Your task to perform on an android device: change keyboard looks Image 0: 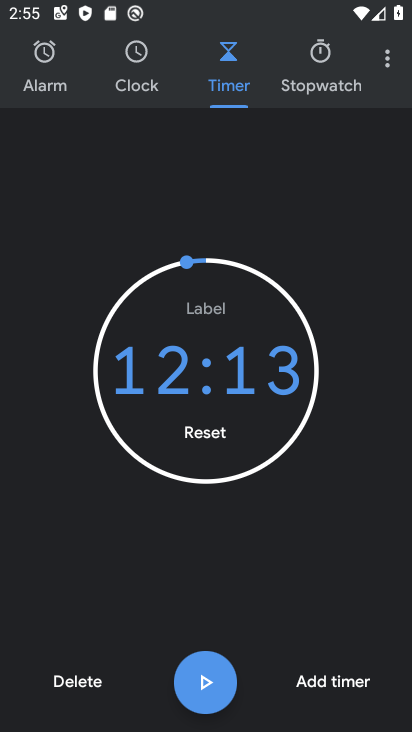
Step 0: press home button
Your task to perform on an android device: change keyboard looks Image 1: 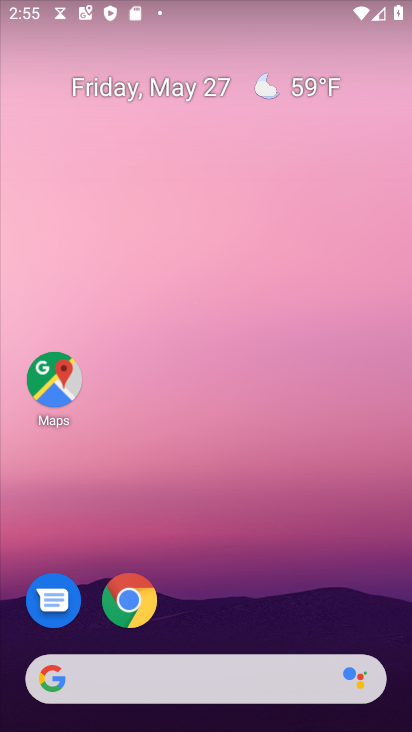
Step 1: drag from (261, 599) to (187, 163)
Your task to perform on an android device: change keyboard looks Image 2: 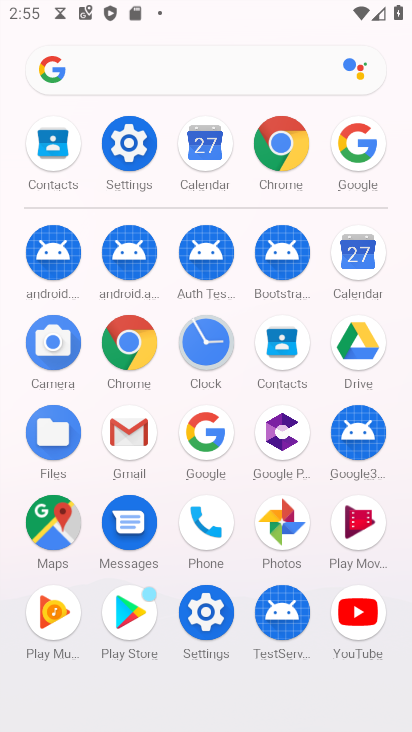
Step 2: click (206, 608)
Your task to perform on an android device: change keyboard looks Image 3: 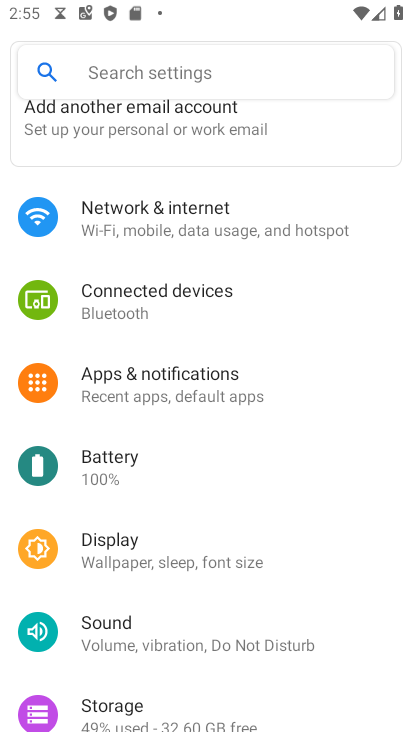
Step 3: drag from (170, 609) to (251, 441)
Your task to perform on an android device: change keyboard looks Image 4: 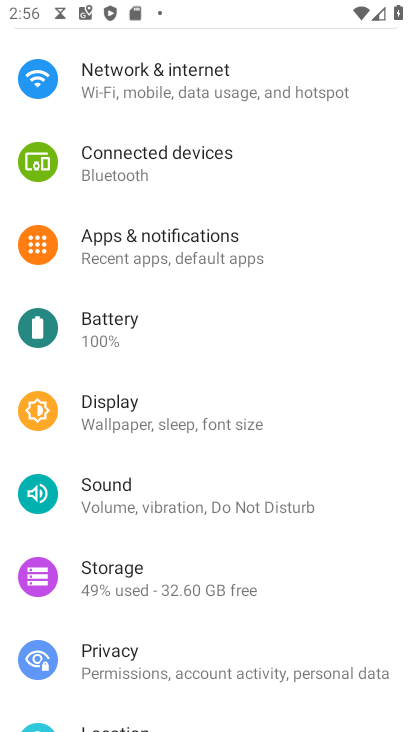
Step 4: drag from (161, 621) to (218, 362)
Your task to perform on an android device: change keyboard looks Image 5: 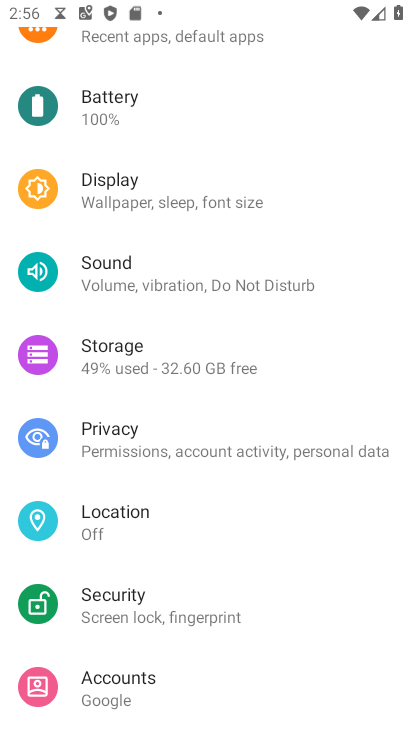
Step 5: drag from (142, 636) to (212, 460)
Your task to perform on an android device: change keyboard looks Image 6: 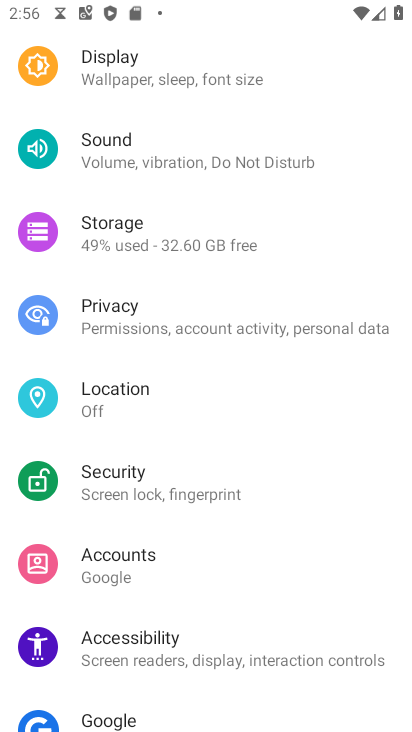
Step 6: drag from (154, 684) to (263, 511)
Your task to perform on an android device: change keyboard looks Image 7: 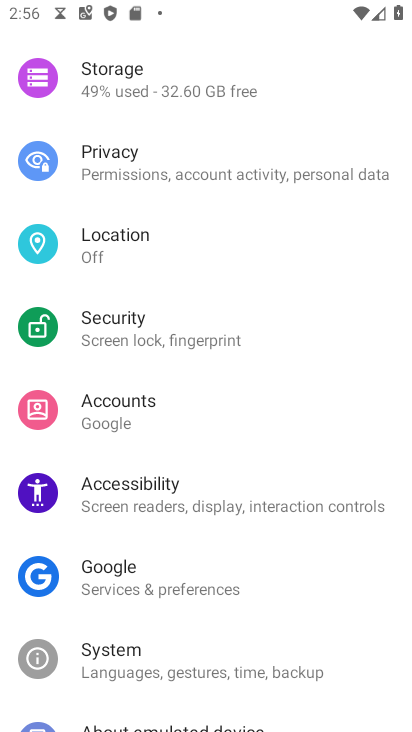
Step 7: click (129, 658)
Your task to perform on an android device: change keyboard looks Image 8: 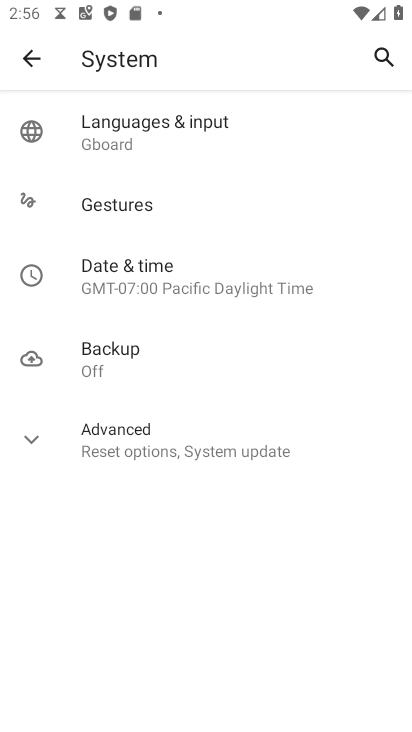
Step 8: click (158, 125)
Your task to perform on an android device: change keyboard looks Image 9: 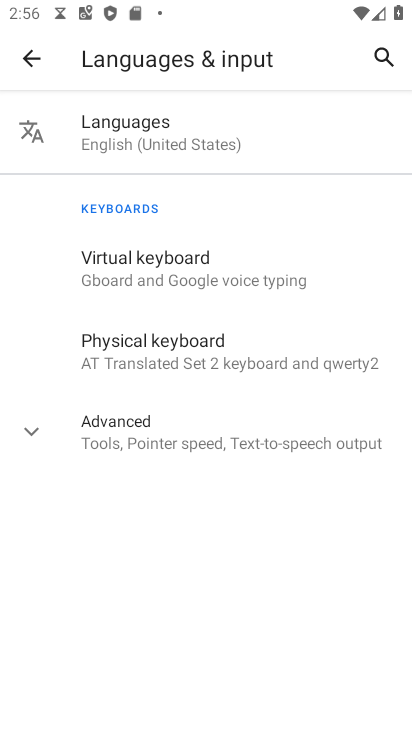
Step 9: click (159, 252)
Your task to perform on an android device: change keyboard looks Image 10: 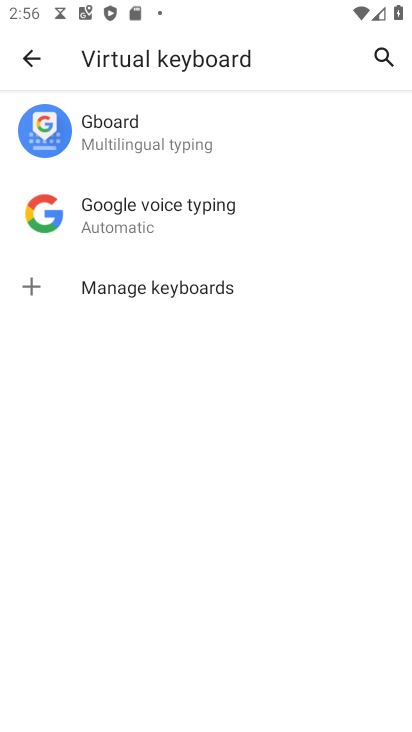
Step 10: click (141, 139)
Your task to perform on an android device: change keyboard looks Image 11: 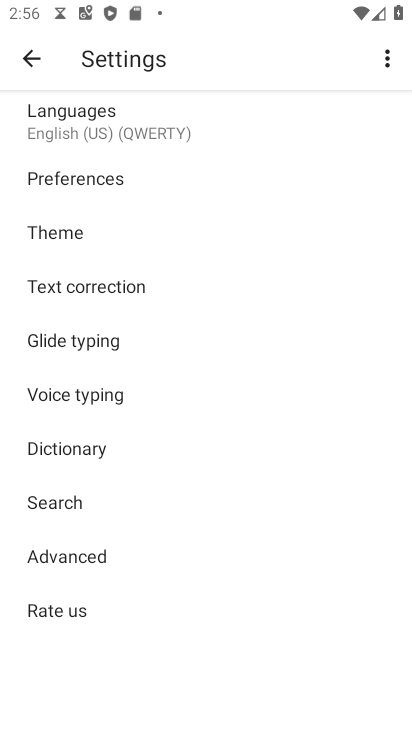
Step 11: click (77, 239)
Your task to perform on an android device: change keyboard looks Image 12: 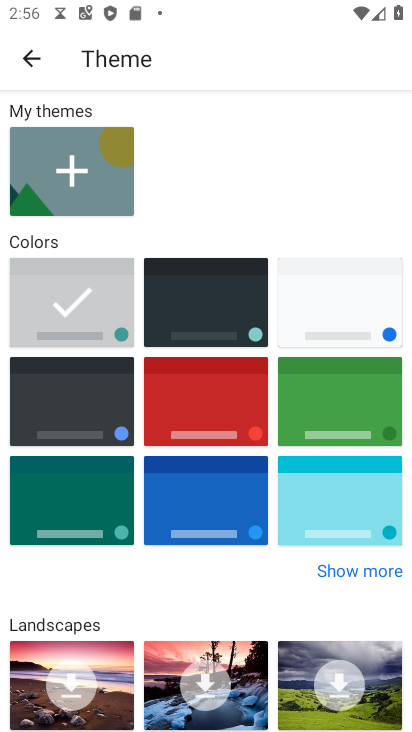
Step 12: click (217, 506)
Your task to perform on an android device: change keyboard looks Image 13: 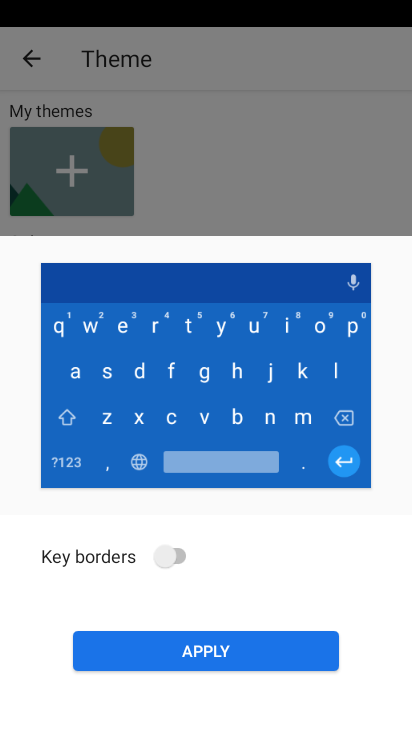
Step 13: click (165, 558)
Your task to perform on an android device: change keyboard looks Image 14: 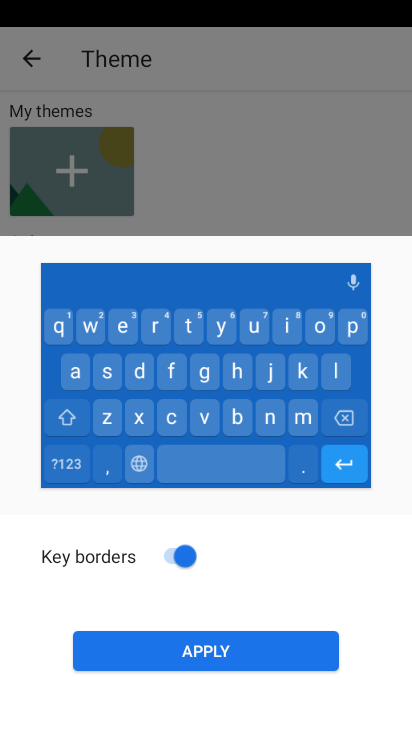
Step 14: click (218, 646)
Your task to perform on an android device: change keyboard looks Image 15: 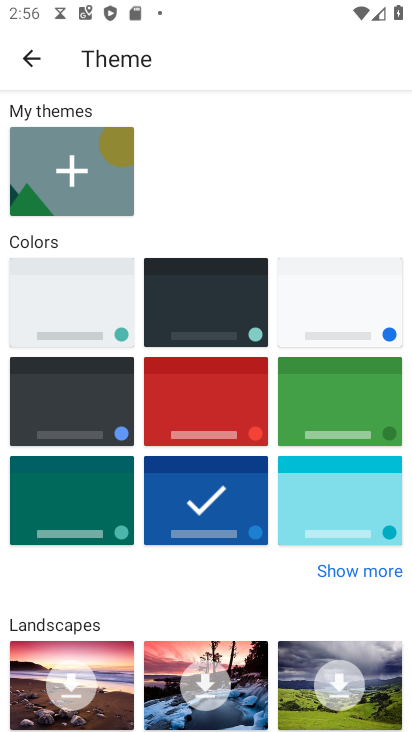
Step 15: task complete